Your task to perform on an android device: Show me popular videos on Youtube Image 0: 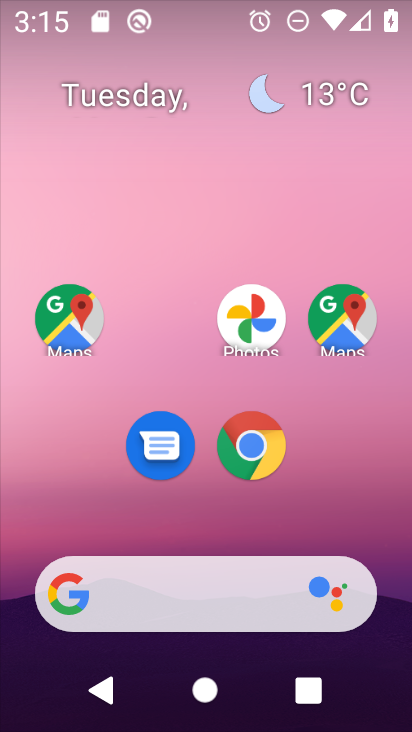
Step 0: drag from (387, 560) to (380, 199)
Your task to perform on an android device: Show me popular videos on Youtube Image 1: 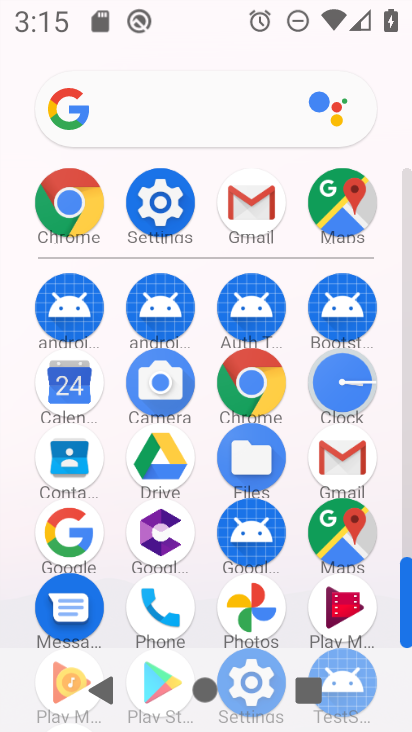
Step 1: drag from (390, 667) to (384, 382)
Your task to perform on an android device: Show me popular videos on Youtube Image 2: 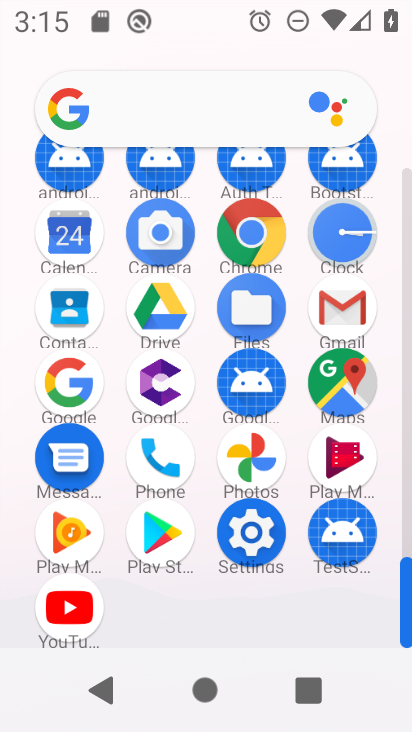
Step 2: click (66, 625)
Your task to perform on an android device: Show me popular videos on Youtube Image 3: 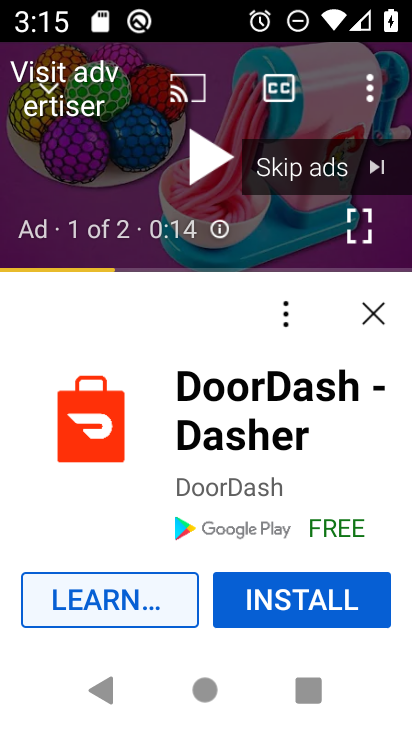
Step 3: click (375, 316)
Your task to perform on an android device: Show me popular videos on Youtube Image 4: 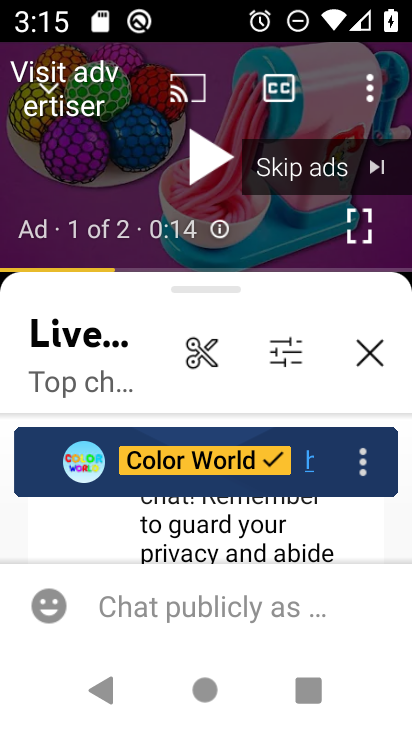
Step 4: click (373, 357)
Your task to perform on an android device: Show me popular videos on Youtube Image 5: 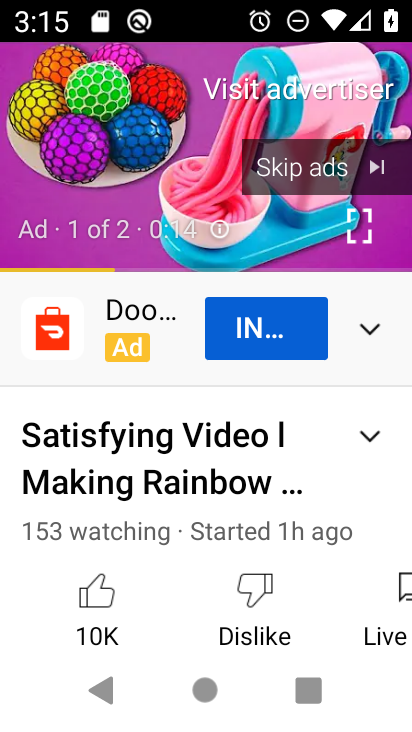
Step 5: press back button
Your task to perform on an android device: Show me popular videos on Youtube Image 6: 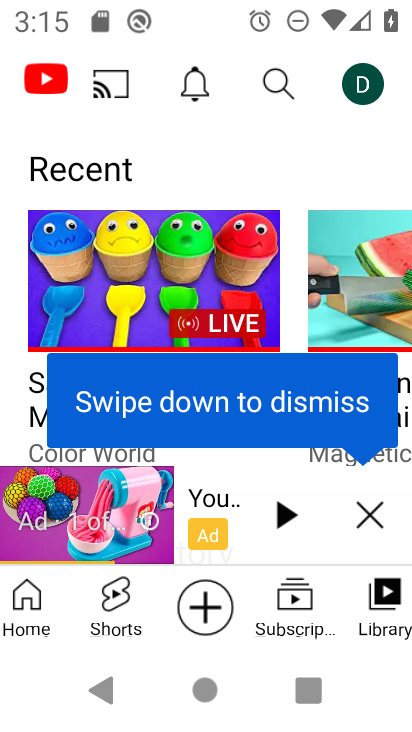
Step 6: click (18, 607)
Your task to perform on an android device: Show me popular videos on Youtube Image 7: 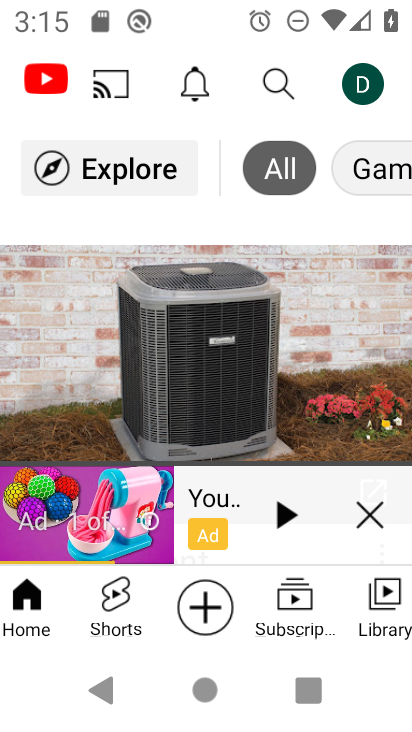
Step 7: click (370, 510)
Your task to perform on an android device: Show me popular videos on Youtube Image 8: 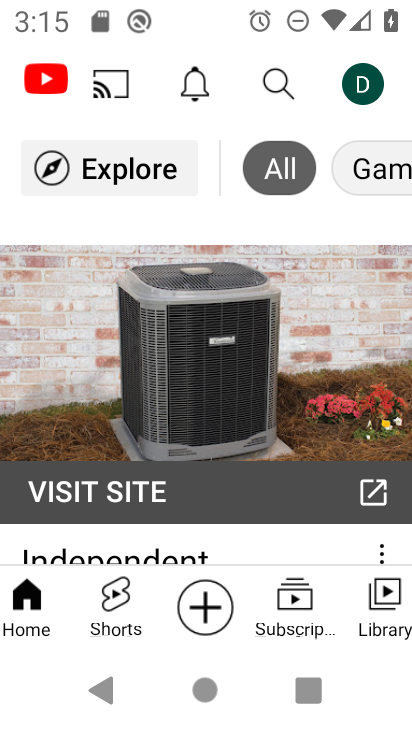
Step 8: task complete